Your task to perform on an android device: Open calendar and show me the fourth week of next month Image 0: 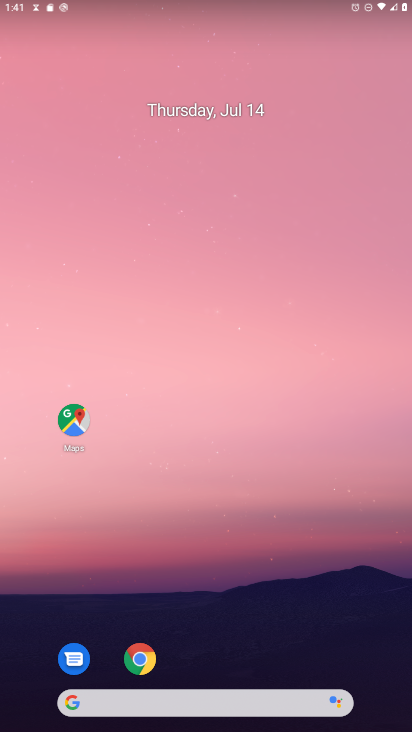
Step 0: drag from (19, 702) to (300, 72)
Your task to perform on an android device: Open calendar and show me the fourth week of next month Image 1: 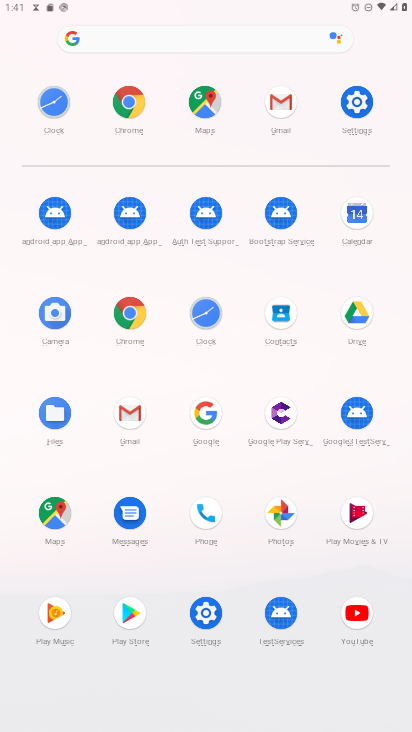
Step 1: click (350, 219)
Your task to perform on an android device: Open calendar and show me the fourth week of next month Image 2: 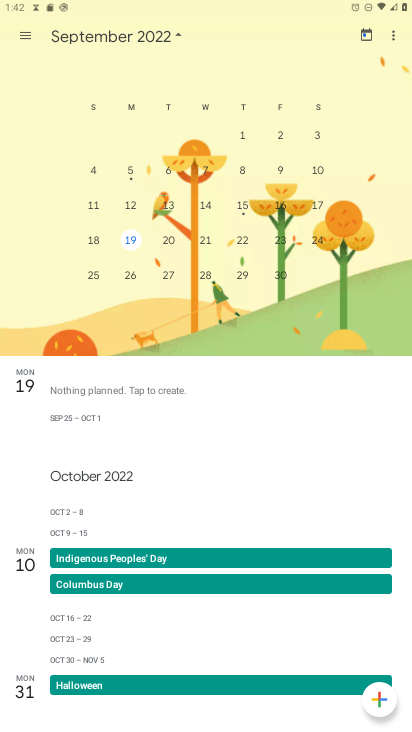
Step 2: drag from (73, 135) to (387, 127)
Your task to perform on an android device: Open calendar and show me the fourth week of next month Image 3: 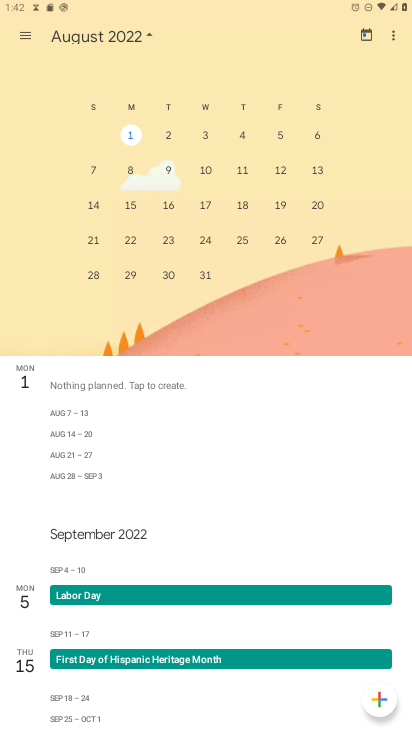
Step 3: click (135, 234)
Your task to perform on an android device: Open calendar and show me the fourth week of next month Image 4: 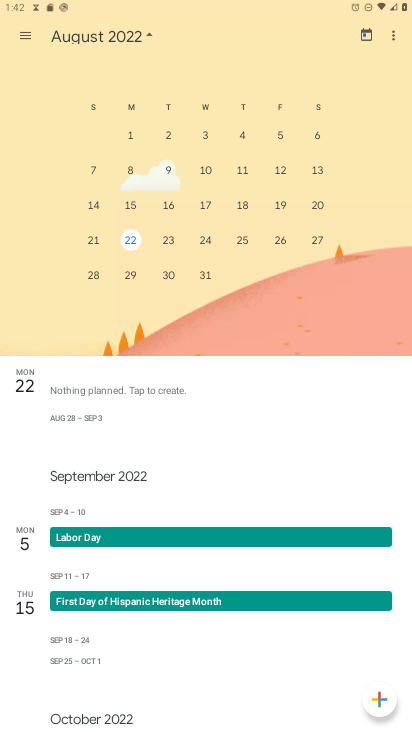
Step 4: task complete